Your task to perform on an android device: check data usage Image 0: 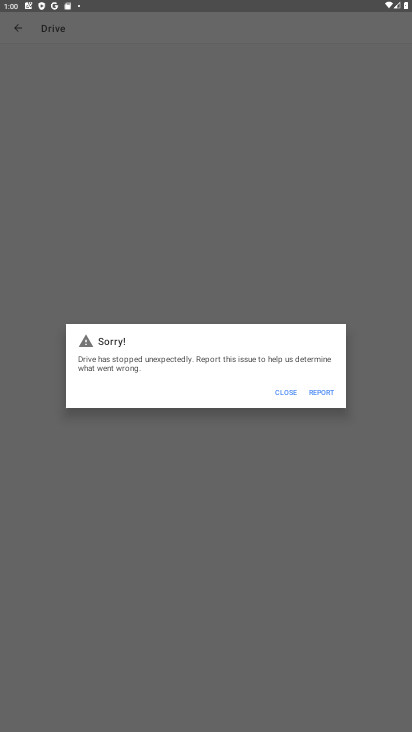
Step 0: press home button
Your task to perform on an android device: check data usage Image 1: 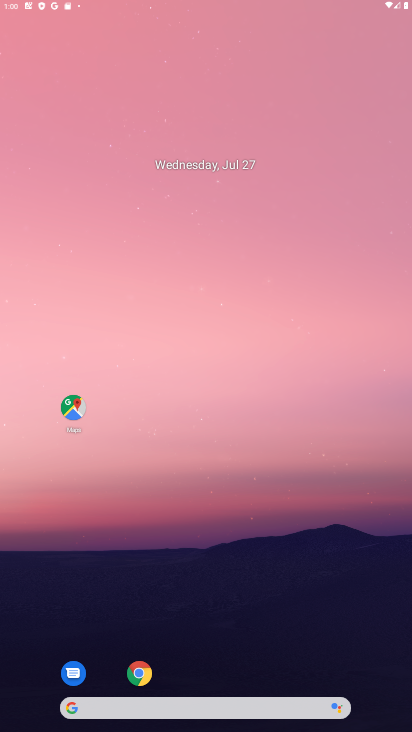
Step 1: press home button
Your task to perform on an android device: check data usage Image 2: 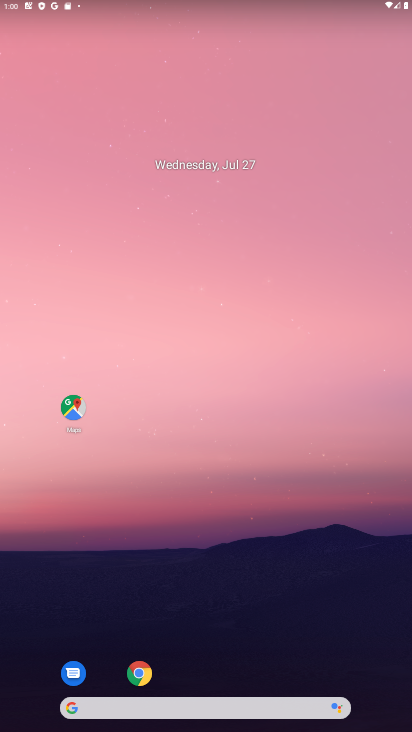
Step 2: drag from (203, 677) to (215, 0)
Your task to perform on an android device: check data usage Image 3: 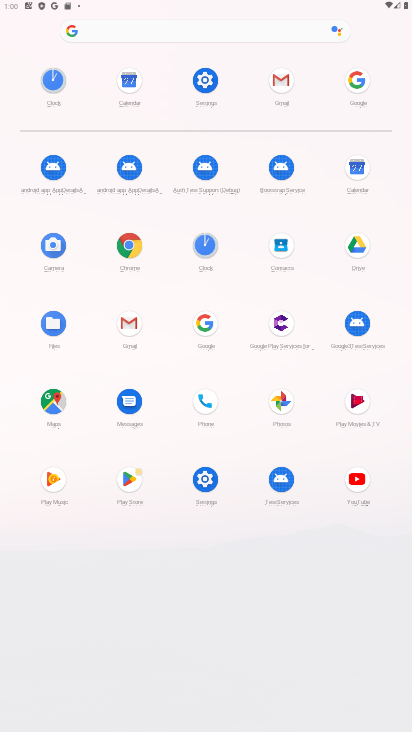
Step 3: click (203, 90)
Your task to perform on an android device: check data usage Image 4: 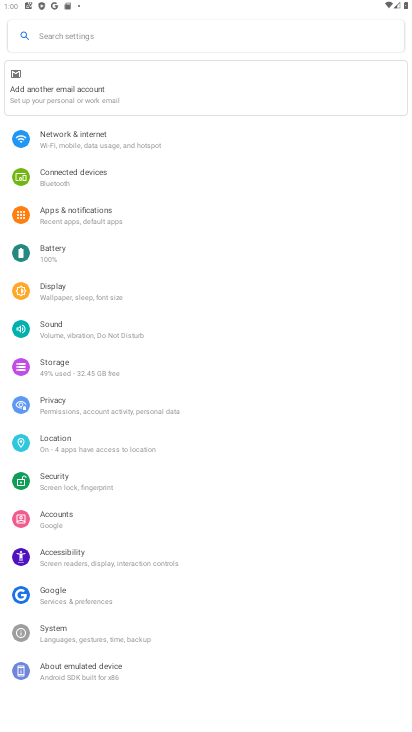
Step 4: click (66, 137)
Your task to perform on an android device: check data usage Image 5: 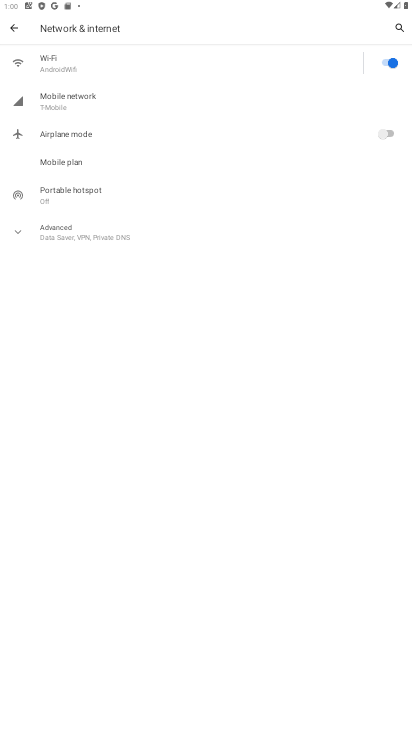
Step 5: click (55, 110)
Your task to perform on an android device: check data usage Image 6: 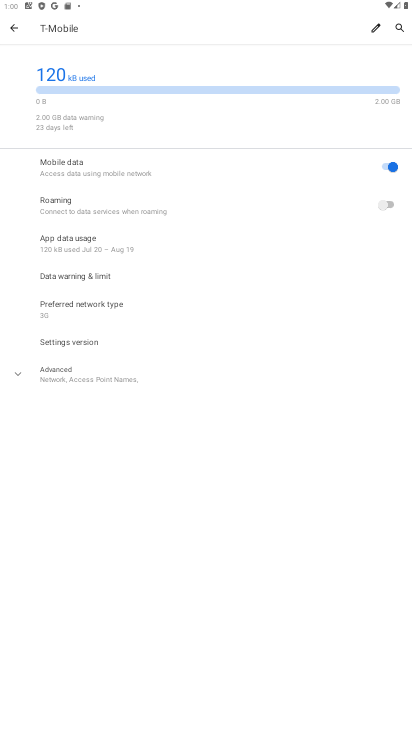
Step 6: click (58, 252)
Your task to perform on an android device: check data usage Image 7: 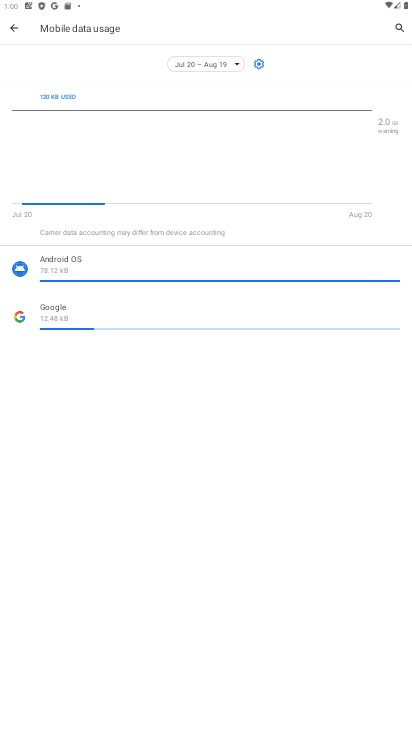
Step 7: task complete